Your task to perform on an android device: Open display settings Image 0: 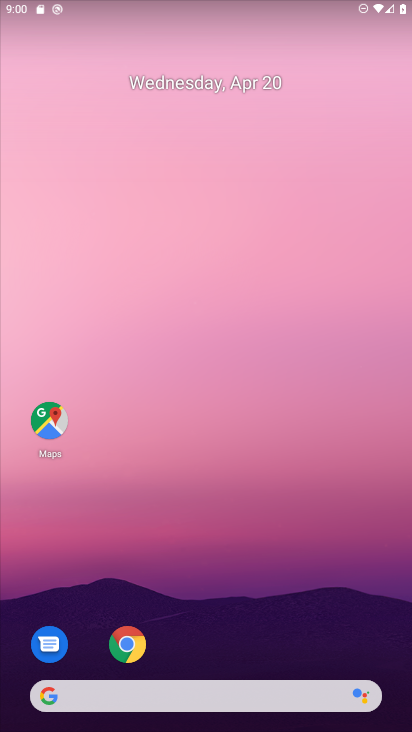
Step 0: drag from (331, 616) to (293, 47)
Your task to perform on an android device: Open display settings Image 1: 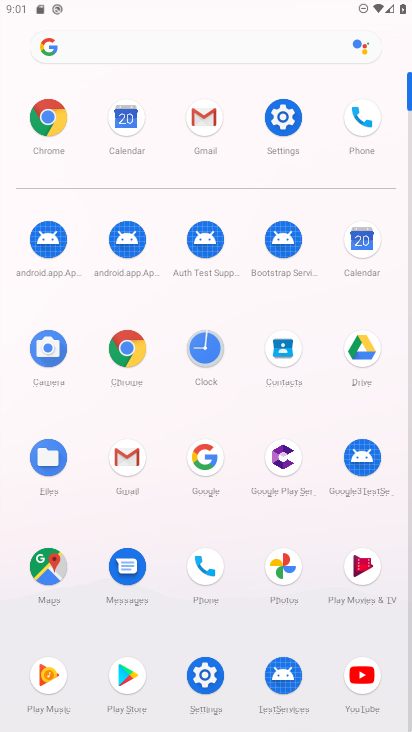
Step 1: click (204, 668)
Your task to perform on an android device: Open display settings Image 2: 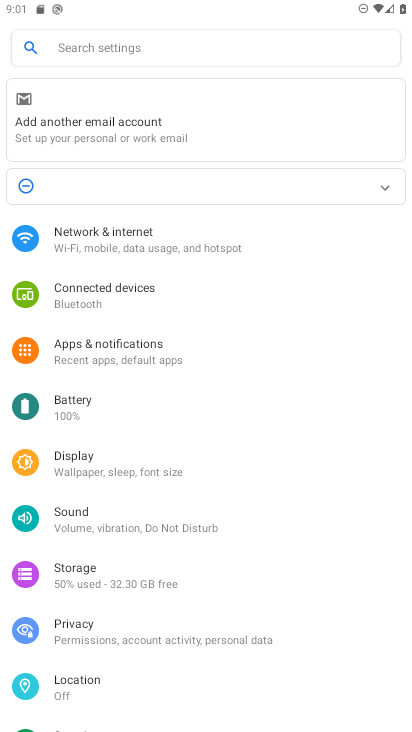
Step 2: click (120, 453)
Your task to perform on an android device: Open display settings Image 3: 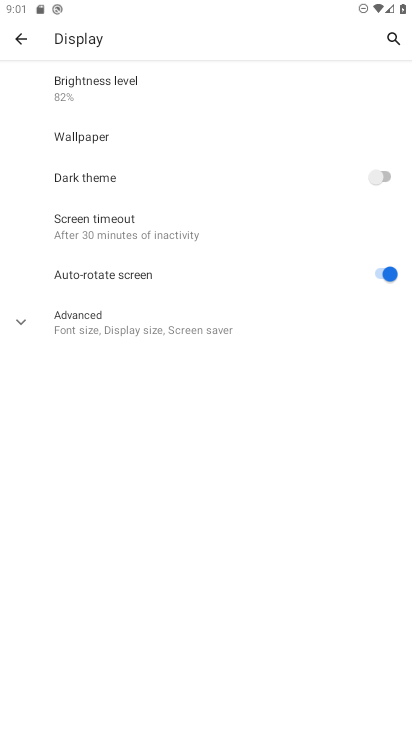
Step 3: task complete